Your task to perform on an android device: set default search engine in the chrome app Image 0: 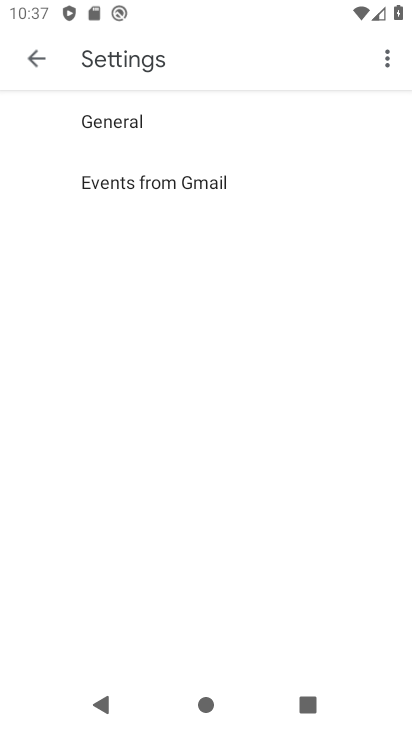
Step 0: press home button
Your task to perform on an android device: set default search engine in the chrome app Image 1: 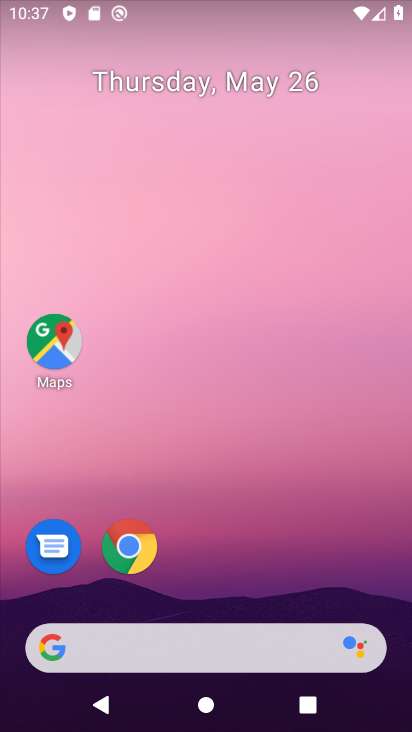
Step 1: click (128, 543)
Your task to perform on an android device: set default search engine in the chrome app Image 2: 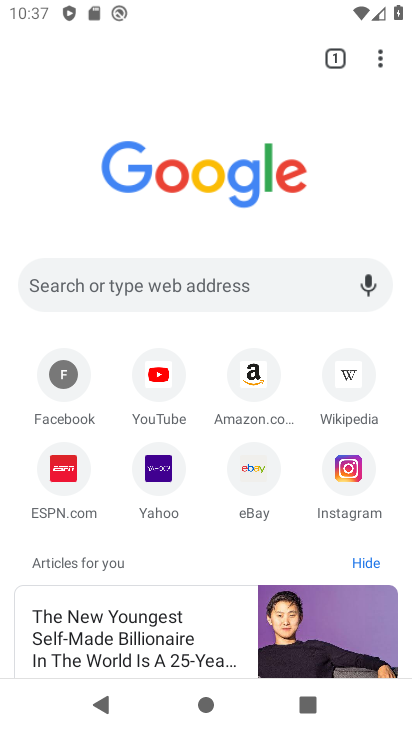
Step 2: click (373, 60)
Your task to perform on an android device: set default search engine in the chrome app Image 3: 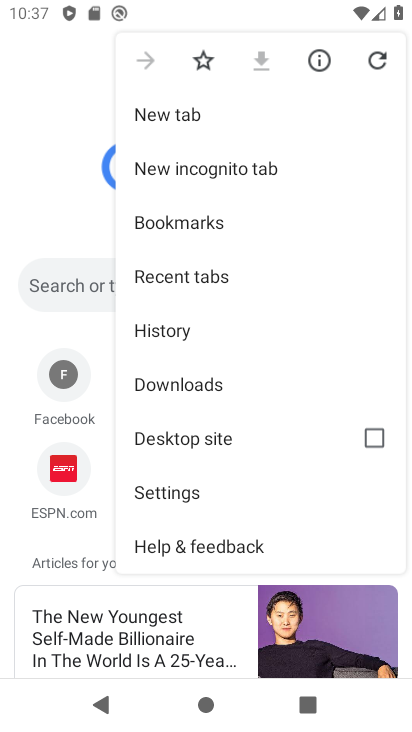
Step 3: click (152, 494)
Your task to perform on an android device: set default search engine in the chrome app Image 4: 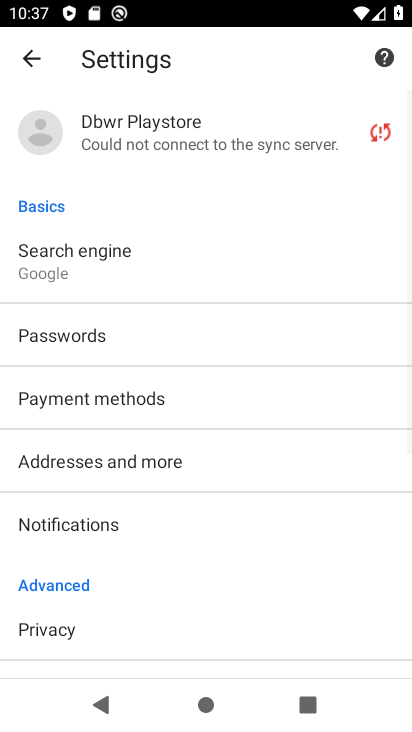
Step 4: click (125, 271)
Your task to perform on an android device: set default search engine in the chrome app Image 5: 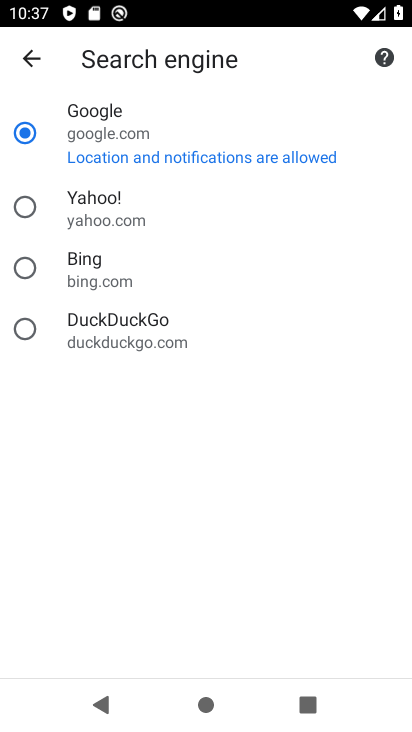
Step 5: task complete